Your task to perform on an android device: open a bookmark in the chrome app Image 0: 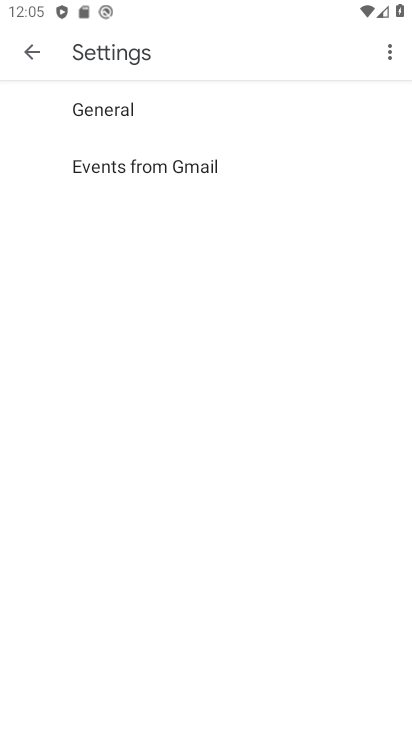
Step 0: press back button
Your task to perform on an android device: open a bookmark in the chrome app Image 1: 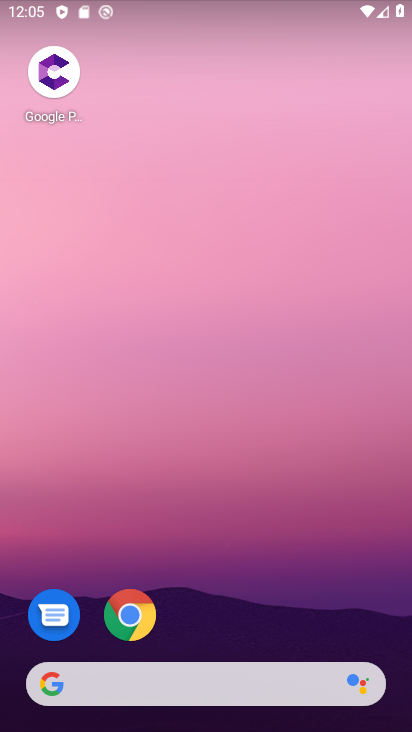
Step 1: click (129, 610)
Your task to perform on an android device: open a bookmark in the chrome app Image 2: 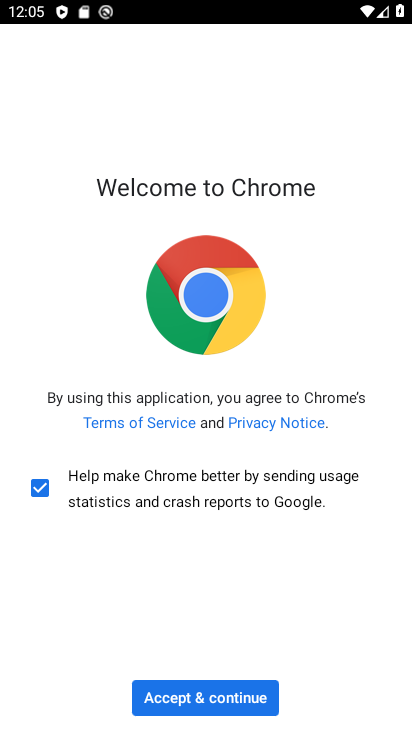
Step 2: click (211, 700)
Your task to perform on an android device: open a bookmark in the chrome app Image 3: 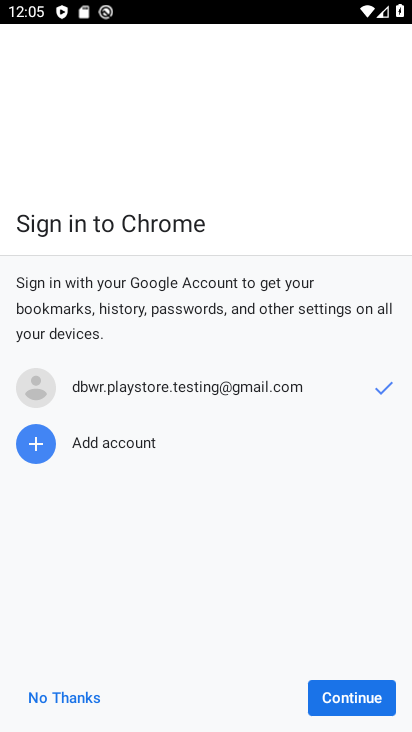
Step 3: click (348, 702)
Your task to perform on an android device: open a bookmark in the chrome app Image 4: 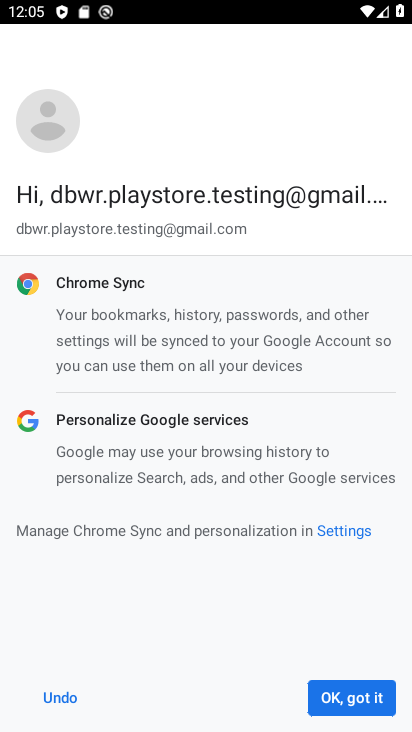
Step 4: click (348, 702)
Your task to perform on an android device: open a bookmark in the chrome app Image 5: 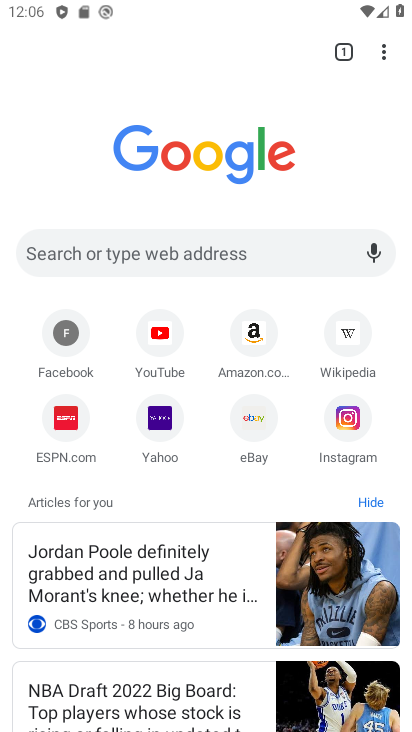
Step 5: click (384, 52)
Your task to perform on an android device: open a bookmark in the chrome app Image 6: 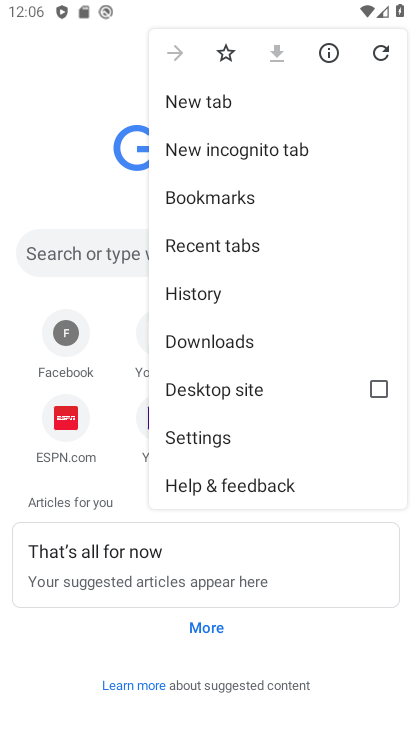
Step 6: click (245, 205)
Your task to perform on an android device: open a bookmark in the chrome app Image 7: 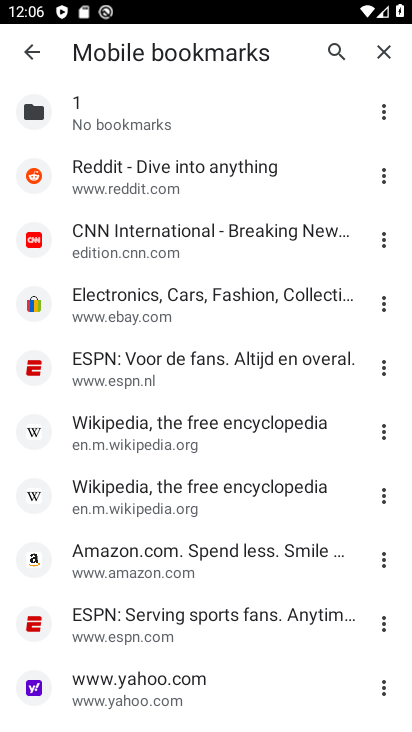
Step 7: task complete